Your task to perform on an android device: turn on the 12-hour format for clock Image 0: 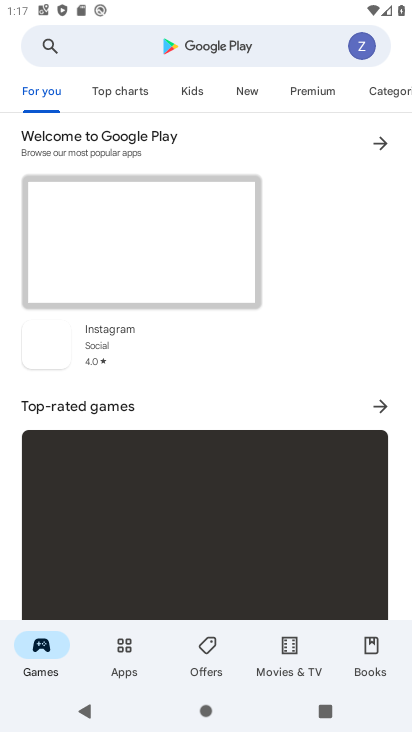
Step 0: press home button
Your task to perform on an android device: turn on the 12-hour format for clock Image 1: 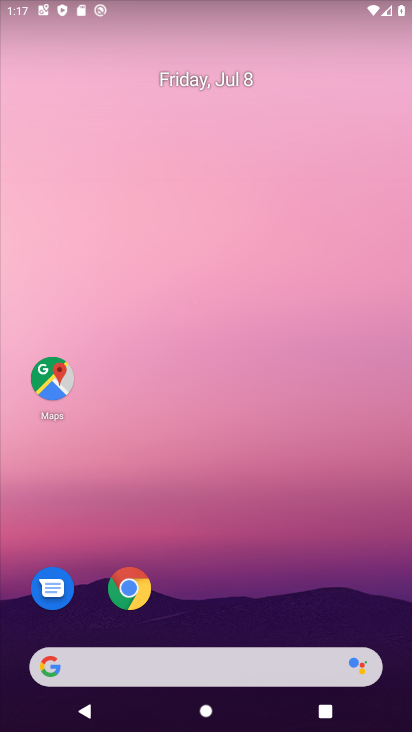
Step 1: drag from (242, 613) to (281, 205)
Your task to perform on an android device: turn on the 12-hour format for clock Image 2: 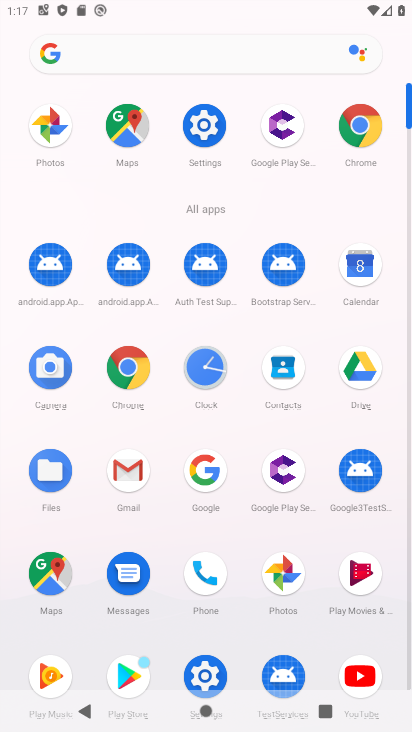
Step 2: click (190, 382)
Your task to perform on an android device: turn on the 12-hour format for clock Image 3: 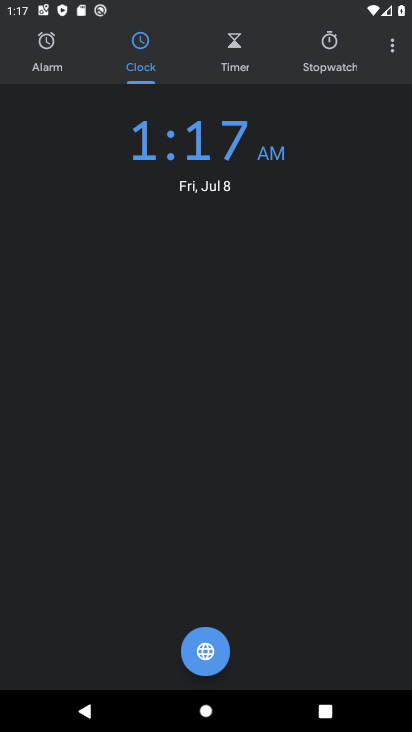
Step 3: click (387, 56)
Your task to perform on an android device: turn on the 12-hour format for clock Image 4: 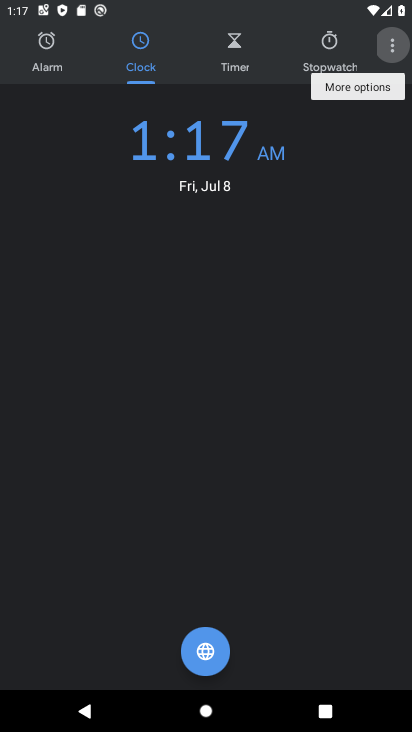
Step 4: click (388, 55)
Your task to perform on an android device: turn on the 12-hour format for clock Image 5: 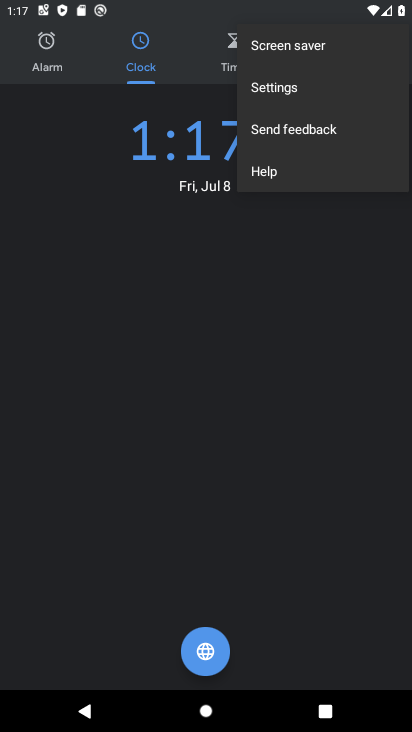
Step 5: click (330, 89)
Your task to perform on an android device: turn on the 12-hour format for clock Image 6: 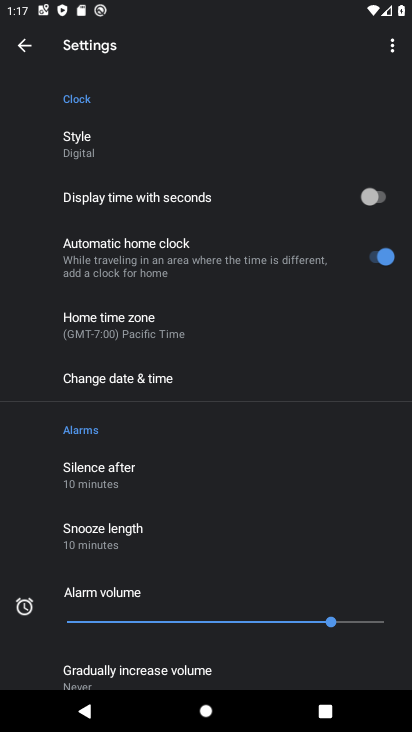
Step 6: click (207, 379)
Your task to perform on an android device: turn on the 12-hour format for clock Image 7: 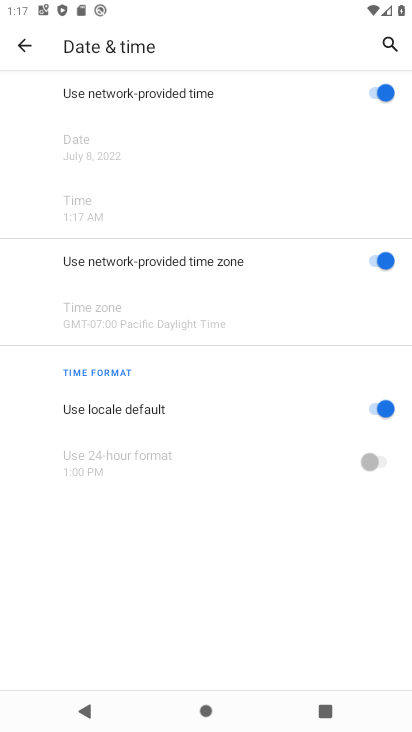
Step 7: task complete